Your task to perform on an android device: add a label to a message in the gmail app Image 0: 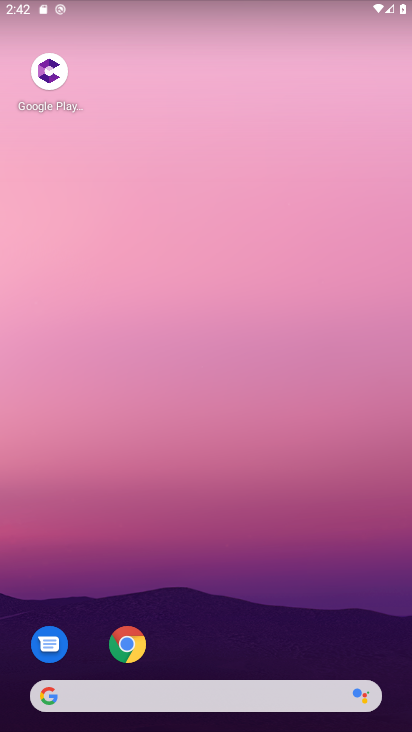
Step 0: drag from (211, 671) to (147, 4)
Your task to perform on an android device: add a label to a message in the gmail app Image 1: 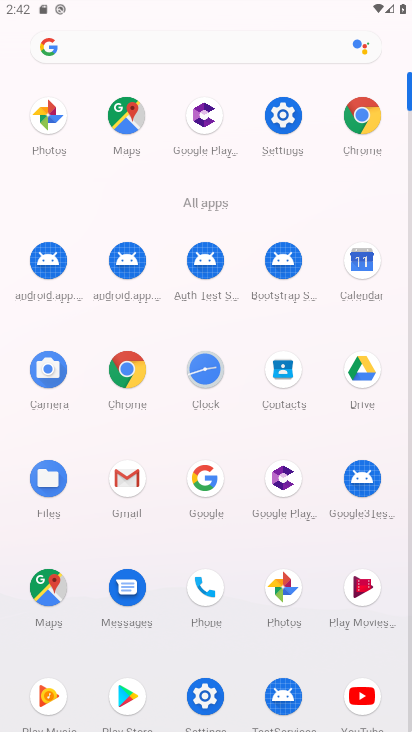
Step 1: click (120, 479)
Your task to perform on an android device: add a label to a message in the gmail app Image 2: 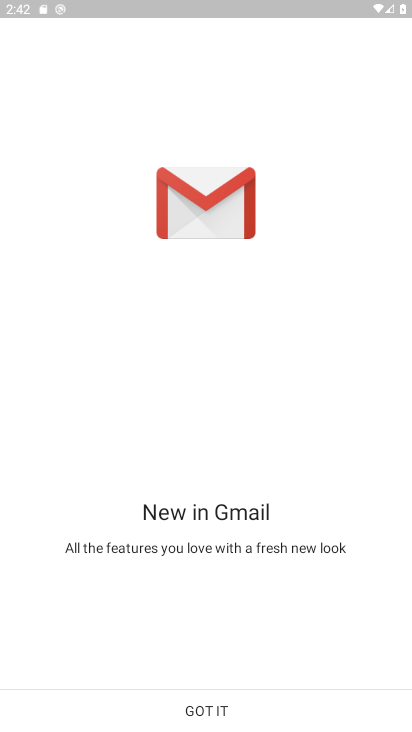
Step 2: click (180, 717)
Your task to perform on an android device: add a label to a message in the gmail app Image 3: 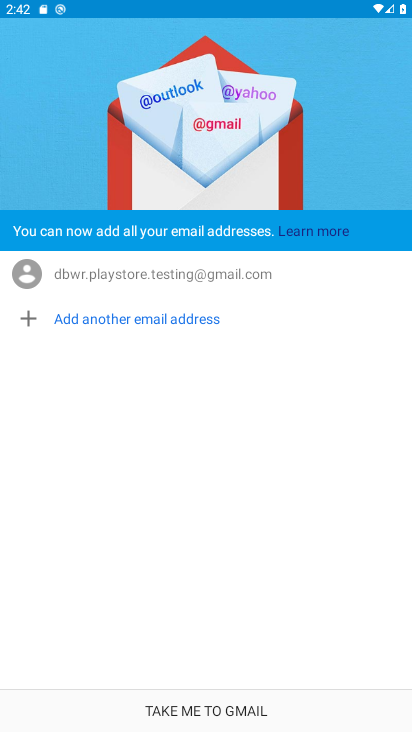
Step 3: click (186, 712)
Your task to perform on an android device: add a label to a message in the gmail app Image 4: 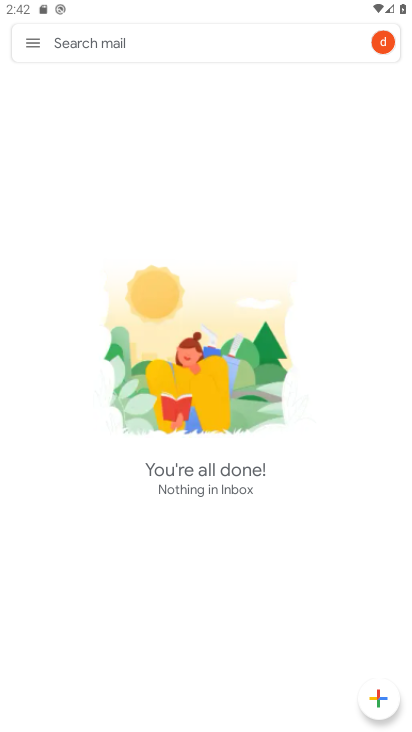
Step 4: task complete